Your task to perform on an android device: add a contact Image 0: 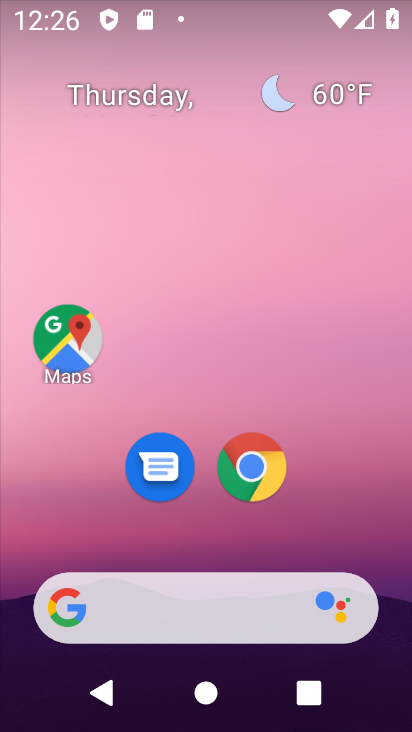
Step 0: drag from (212, 389) to (234, 0)
Your task to perform on an android device: add a contact Image 1: 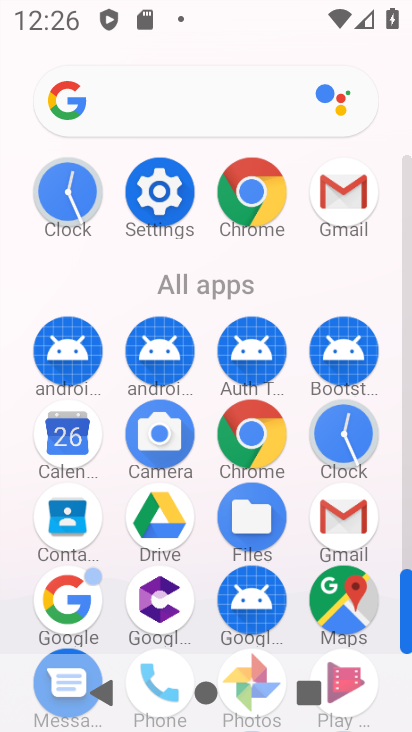
Step 1: click (72, 524)
Your task to perform on an android device: add a contact Image 2: 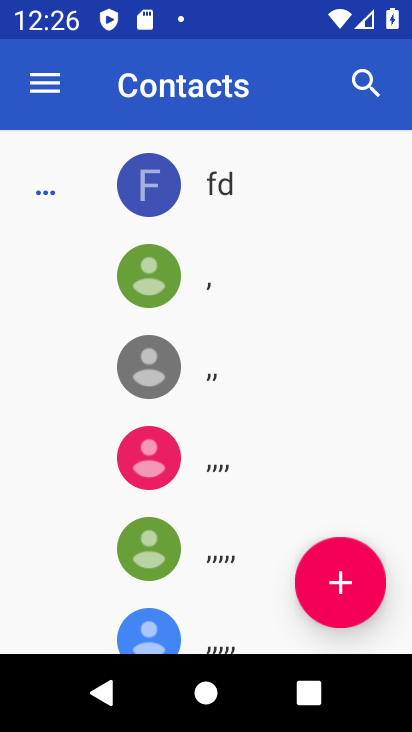
Step 2: click (342, 571)
Your task to perform on an android device: add a contact Image 3: 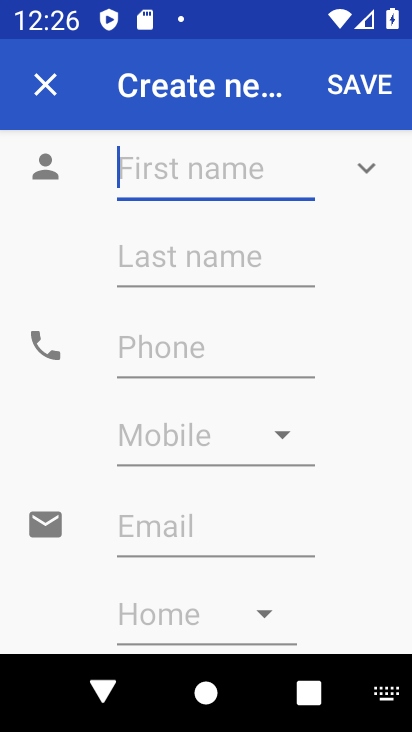
Step 3: type "salvador"
Your task to perform on an android device: add a contact Image 4: 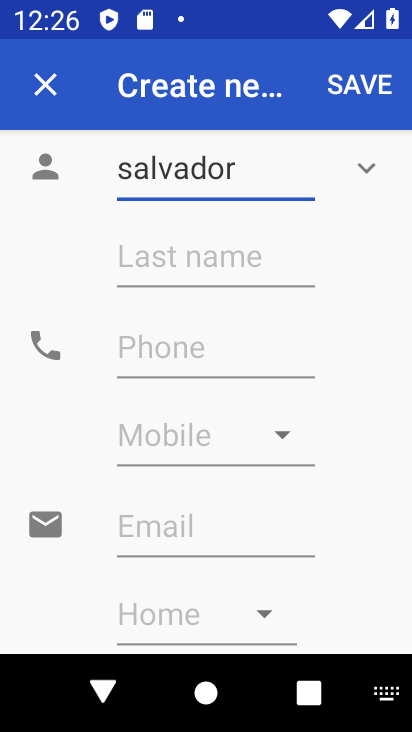
Step 4: click (374, 81)
Your task to perform on an android device: add a contact Image 5: 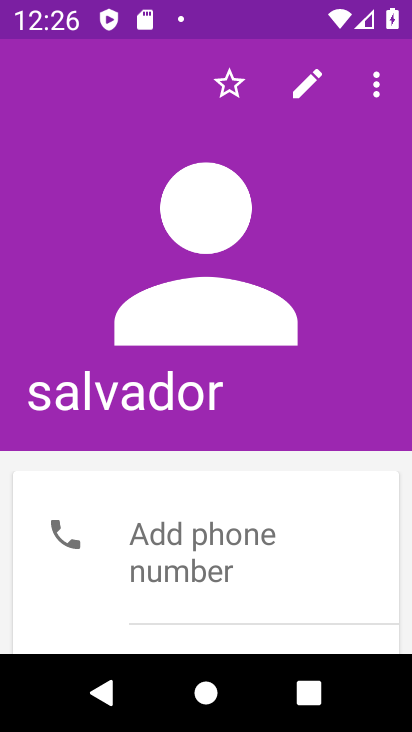
Step 5: task complete